Your task to perform on an android device: change the clock display to digital Image 0: 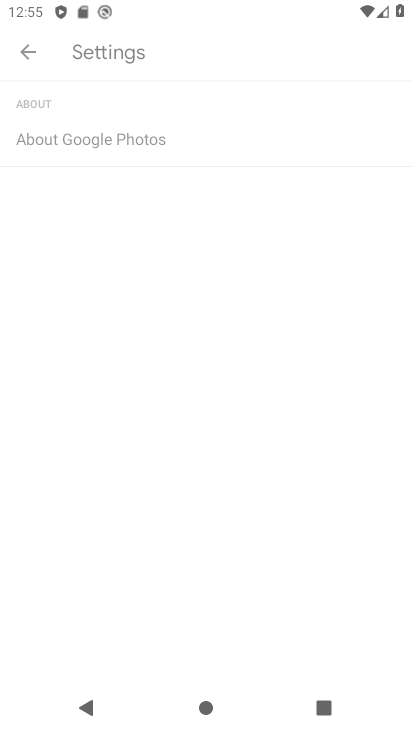
Step 0: click (383, 48)
Your task to perform on an android device: change the clock display to digital Image 1: 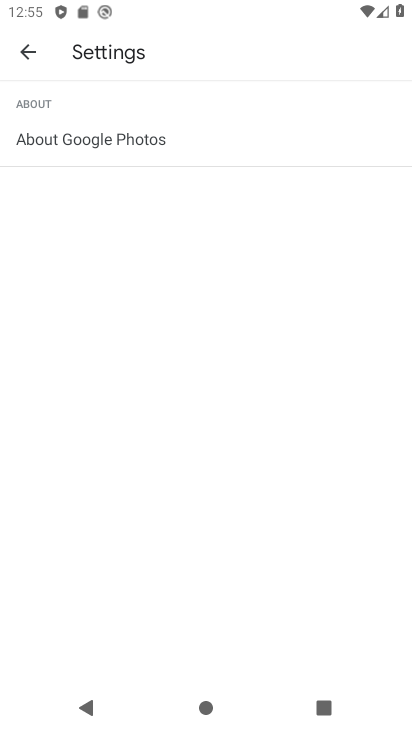
Step 1: press home button
Your task to perform on an android device: change the clock display to digital Image 2: 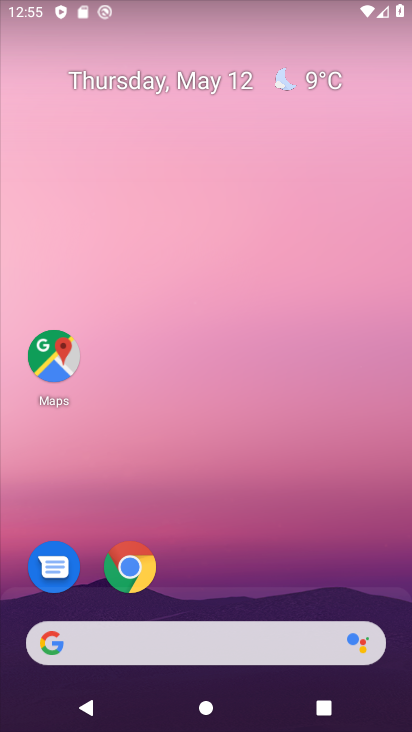
Step 2: drag from (247, 586) to (392, 3)
Your task to perform on an android device: change the clock display to digital Image 3: 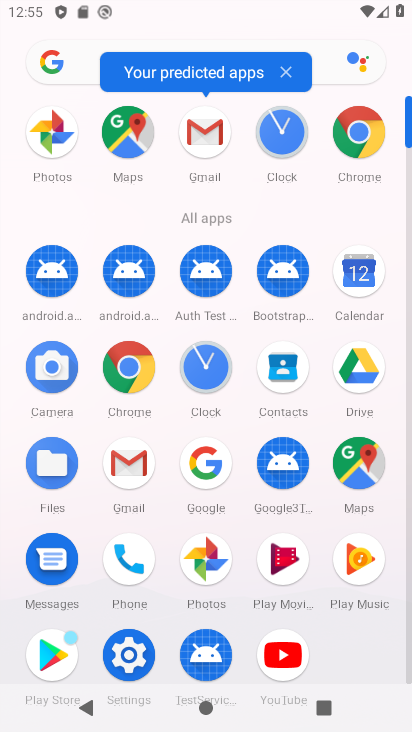
Step 3: click (199, 355)
Your task to perform on an android device: change the clock display to digital Image 4: 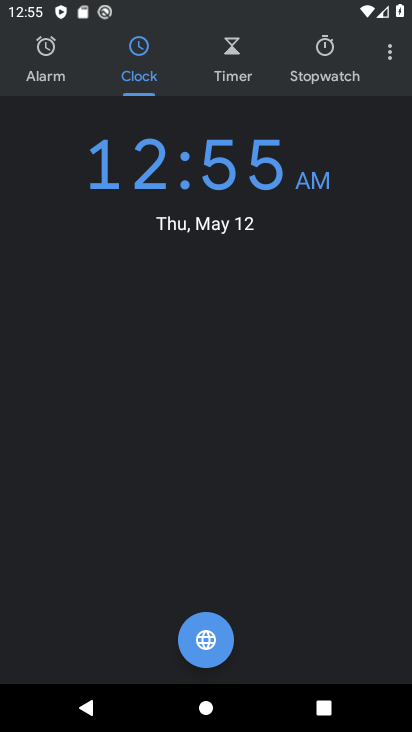
Step 4: click (382, 47)
Your task to perform on an android device: change the clock display to digital Image 5: 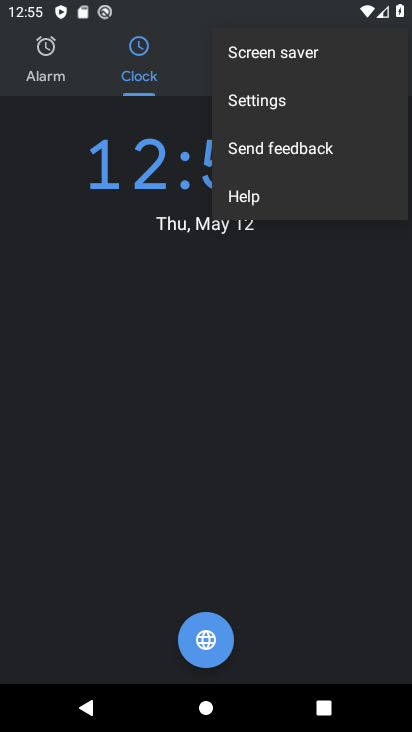
Step 5: click (299, 98)
Your task to perform on an android device: change the clock display to digital Image 6: 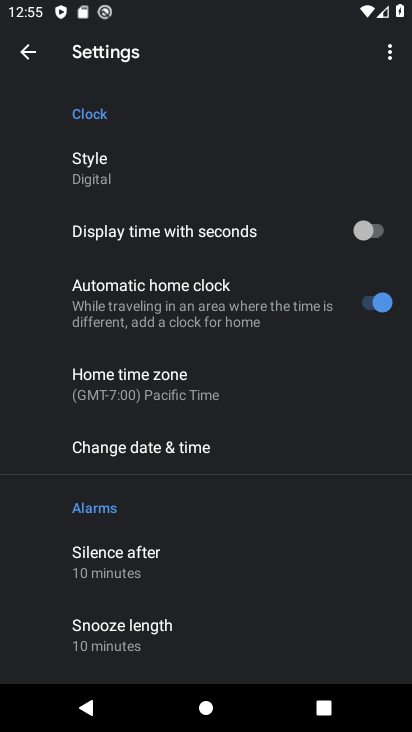
Step 6: click (121, 161)
Your task to perform on an android device: change the clock display to digital Image 7: 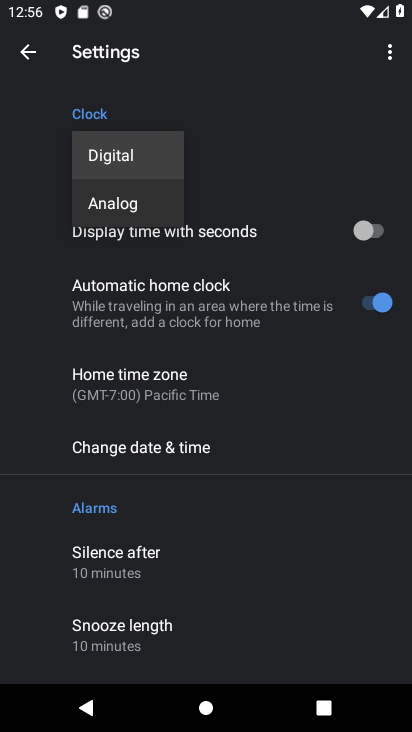
Step 7: click (143, 153)
Your task to perform on an android device: change the clock display to digital Image 8: 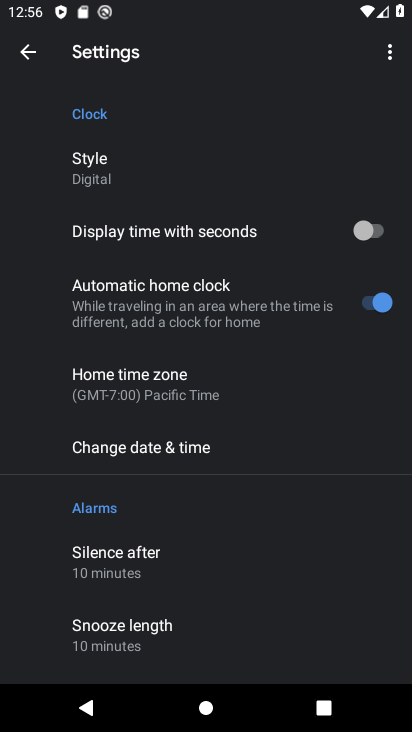
Step 8: task complete